Your task to perform on an android device: Open Chrome and go to the settings page Image 0: 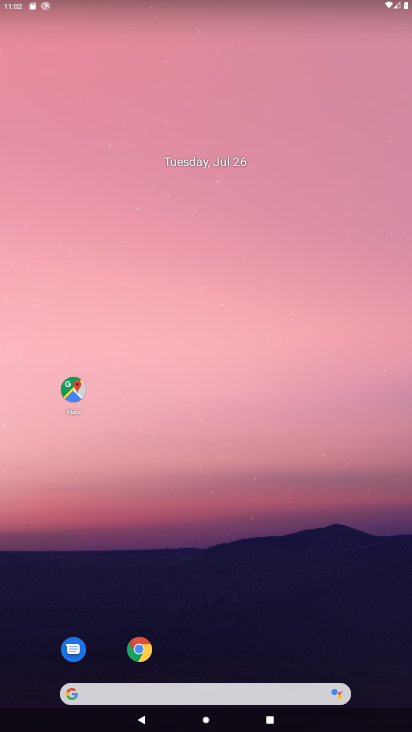
Step 0: click (150, 657)
Your task to perform on an android device: Open Chrome and go to the settings page Image 1: 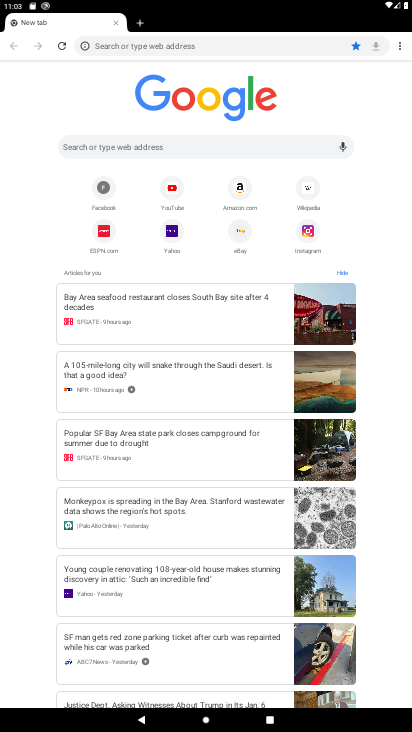
Step 1: click (398, 46)
Your task to perform on an android device: Open Chrome and go to the settings page Image 2: 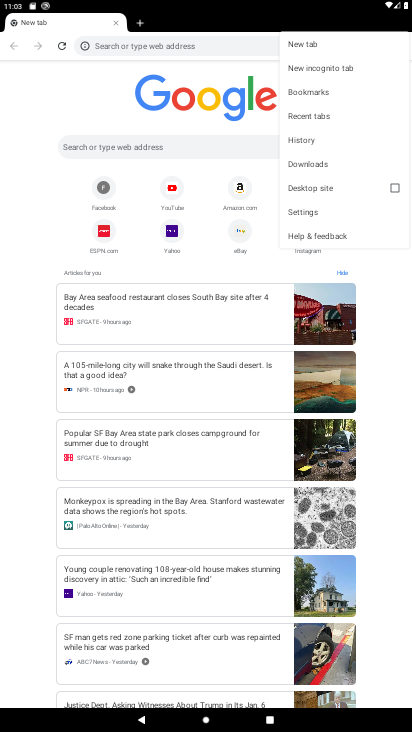
Step 2: click (313, 213)
Your task to perform on an android device: Open Chrome and go to the settings page Image 3: 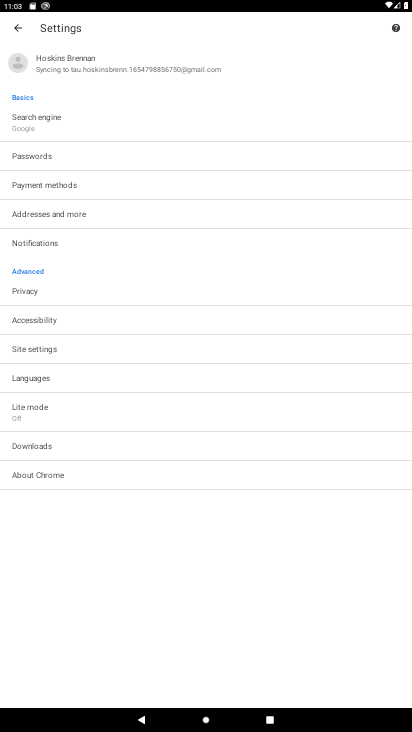
Step 3: task complete